Your task to perform on an android device: Open Google Maps and go to "Timeline" Image 0: 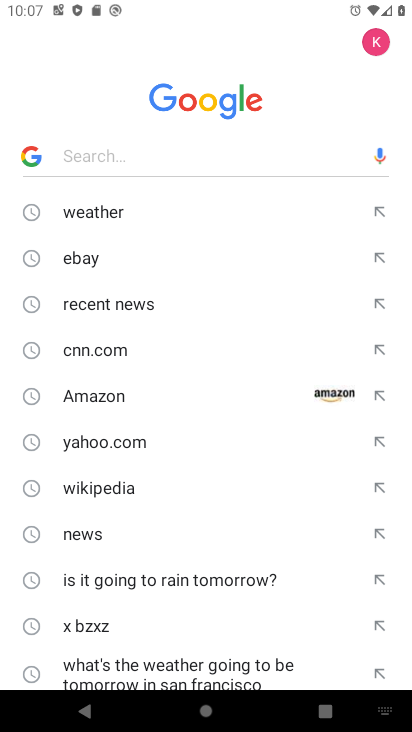
Step 0: press home button
Your task to perform on an android device: Open Google Maps and go to "Timeline" Image 1: 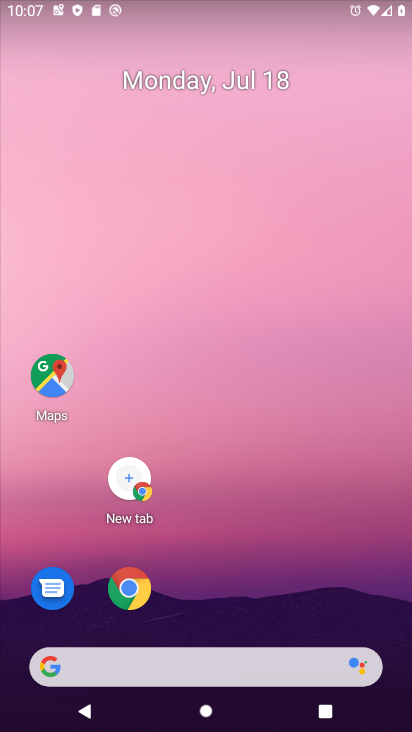
Step 1: click (50, 387)
Your task to perform on an android device: Open Google Maps and go to "Timeline" Image 2: 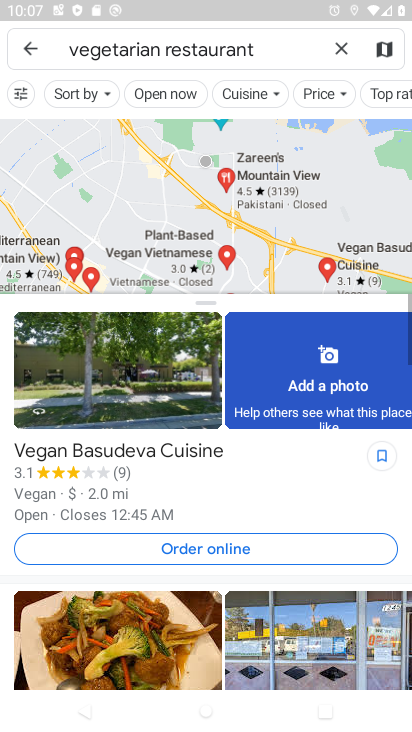
Step 2: click (22, 38)
Your task to perform on an android device: Open Google Maps and go to "Timeline" Image 3: 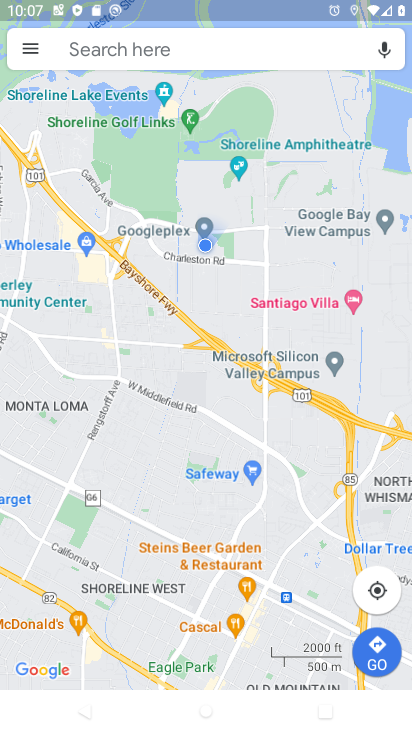
Step 3: click (33, 53)
Your task to perform on an android device: Open Google Maps and go to "Timeline" Image 4: 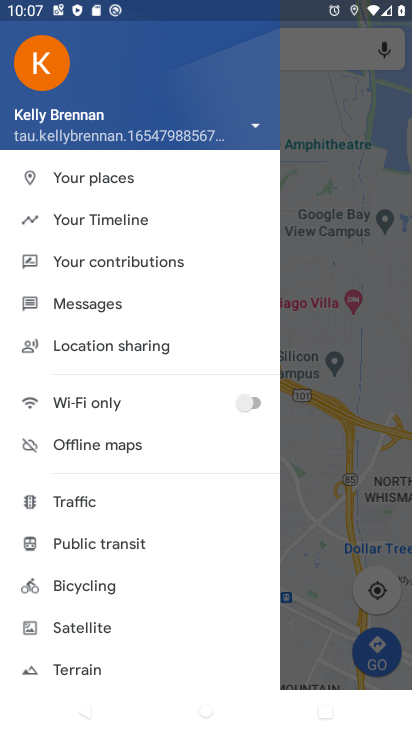
Step 4: click (139, 228)
Your task to perform on an android device: Open Google Maps and go to "Timeline" Image 5: 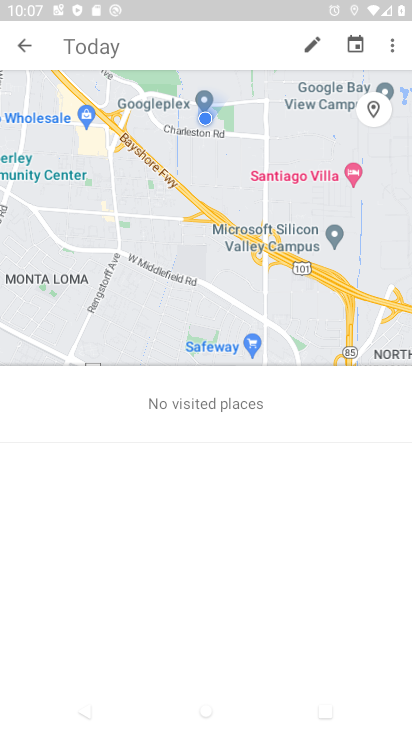
Step 5: task complete